Your task to perform on an android device: Go to settings Image 0: 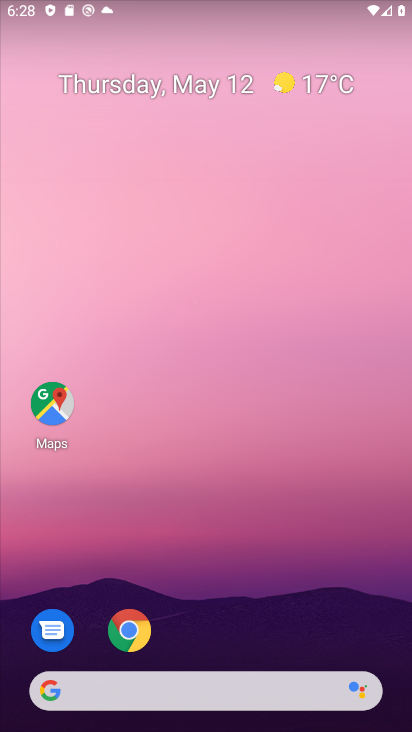
Step 0: drag from (355, 612) to (245, 61)
Your task to perform on an android device: Go to settings Image 1: 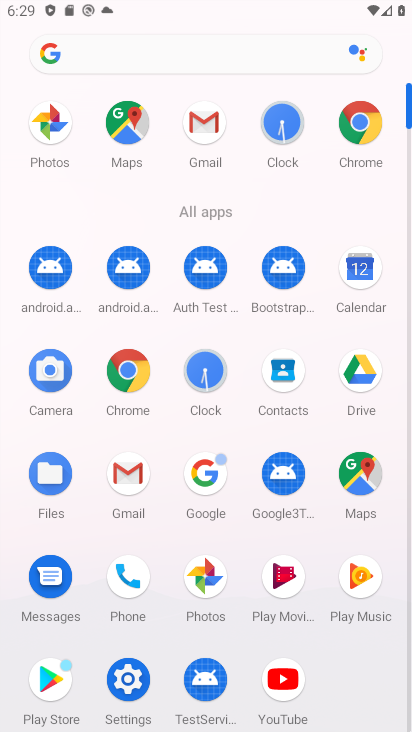
Step 1: click (105, 685)
Your task to perform on an android device: Go to settings Image 2: 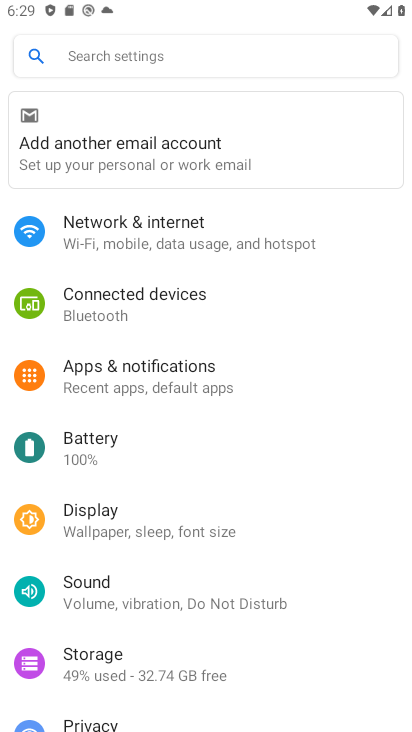
Step 2: task complete